Your task to perform on an android device: turn on notifications settings in the gmail app Image 0: 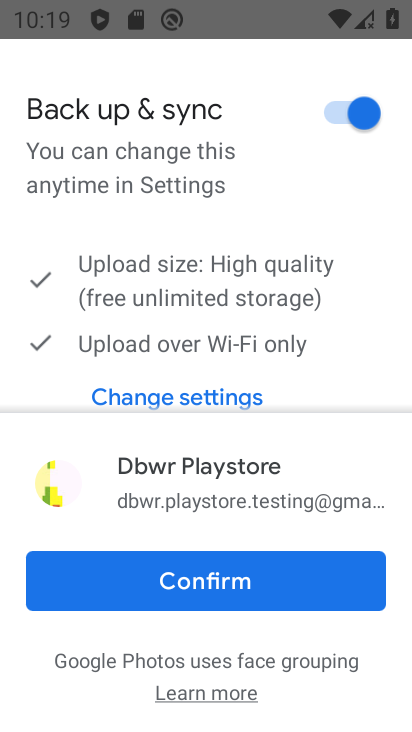
Step 0: press home button
Your task to perform on an android device: turn on notifications settings in the gmail app Image 1: 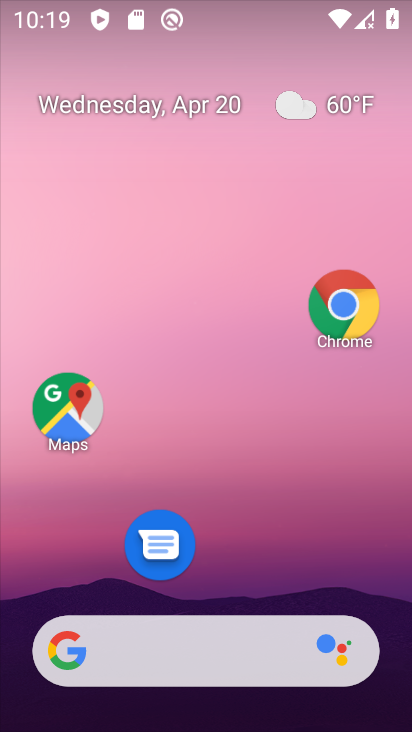
Step 1: drag from (261, 620) to (281, 146)
Your task to perform on an android device: turn on notifications settings in the gmail app Image 2: 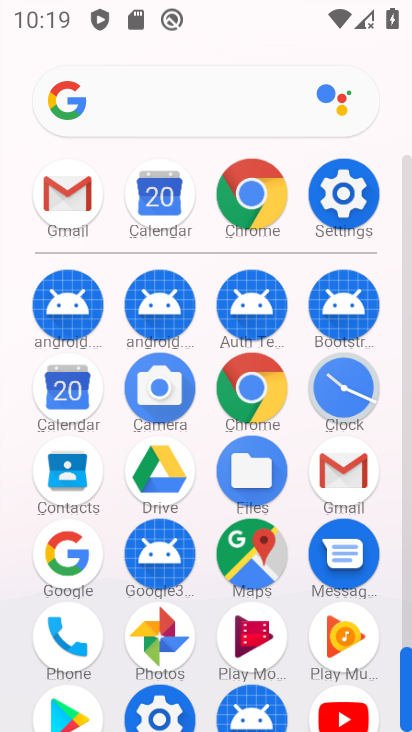
Step 2: click (354, 477)
Your task to perform on an android device: turn on notifications settings in the gmail app Image 3: 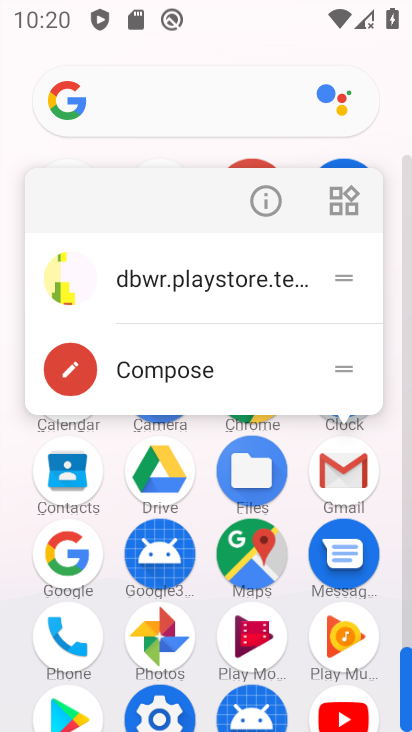
Step 3: click (356, 478)
Your task to perform on an android device: turn on notifications settings in the gmail app Image 4: 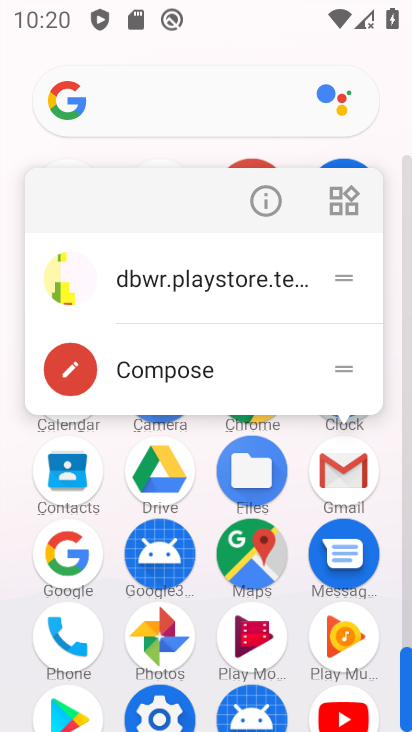
Step 4: click (351, 489)
Your task to perform on an android device: turn on notifications settings in the gmail app Image 5: 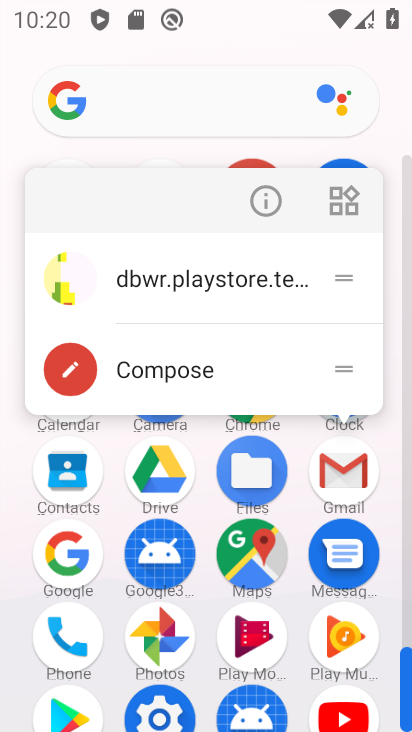
Step 5: click (354, 509)
Your task to perform on an android device: turn on notifications settings in the gmail app Image 6: 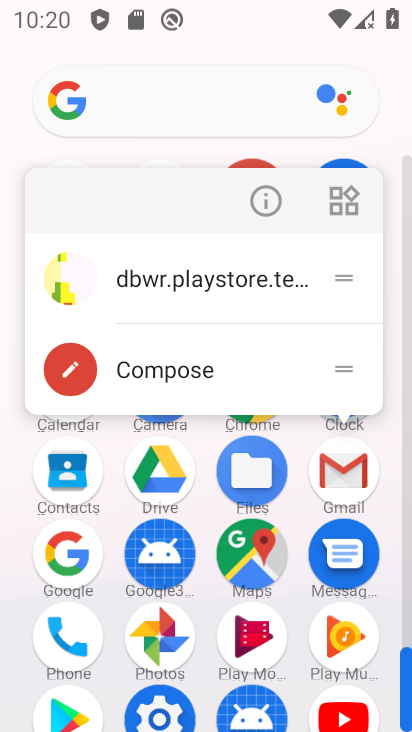
Step 6: click (349, 454)
Your task to perform on an android device: turn on notifications settings in the gmail app Image 7: 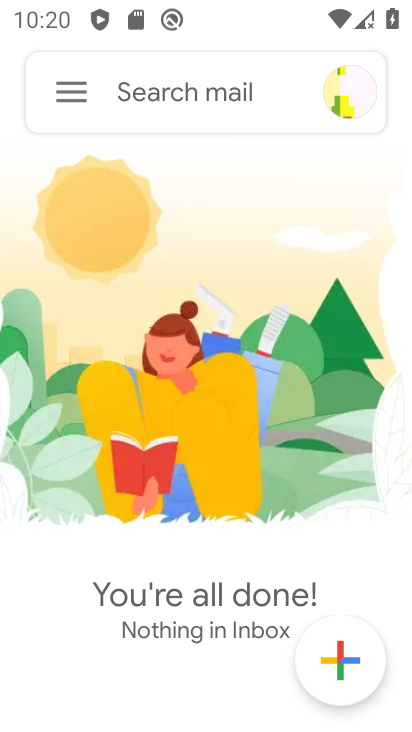
Step 7: click (74, 86)
Your task to perform on an android device: turn on notifications settings in the gmail app Image 8: 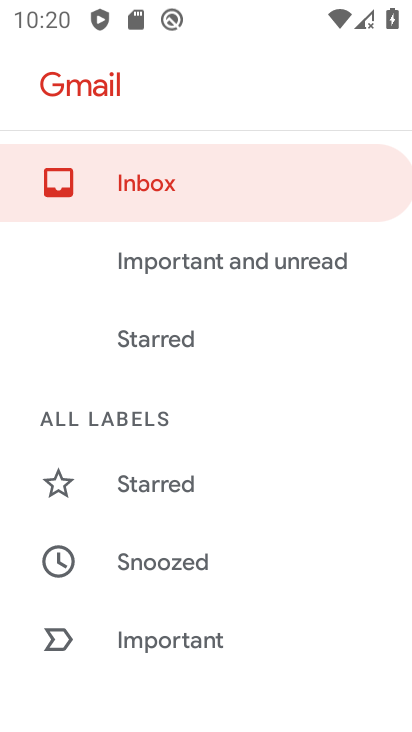
Step 8: drag from (179, 594) to (170, 194)
Your task to perform on an android device: turn on notifications settings in the gmail app Image 9: 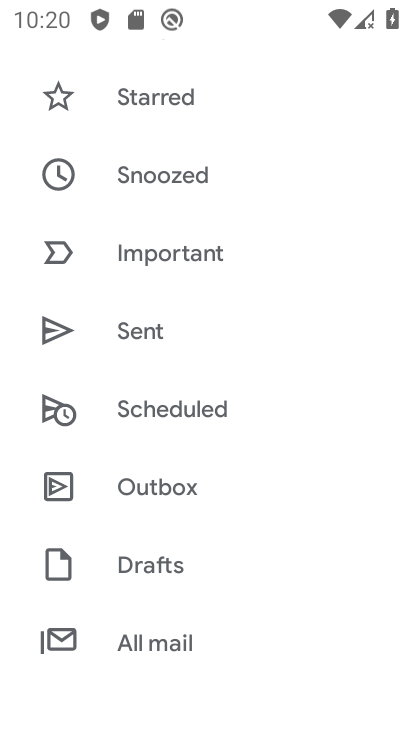
Step 9: drag from (219, 446) to (217, 98)
Your task to perform on an android device: turn on notifications settings in the gmail app Image 10: 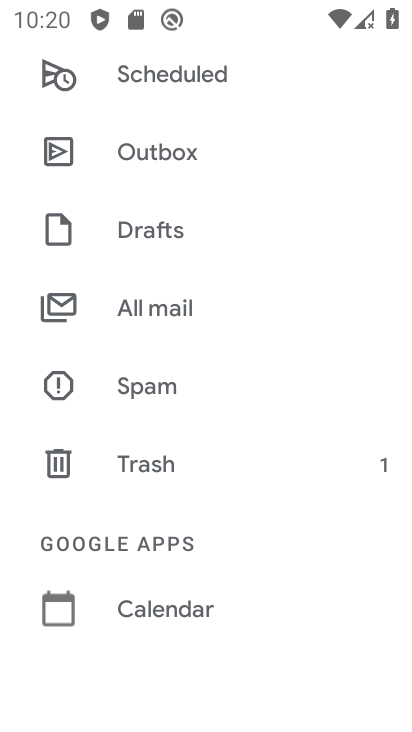
Step 10: drag from (181, 550) to (192, 177)
Your task to perform on an android device: turn on notifications settings in the gmail app Image 11: 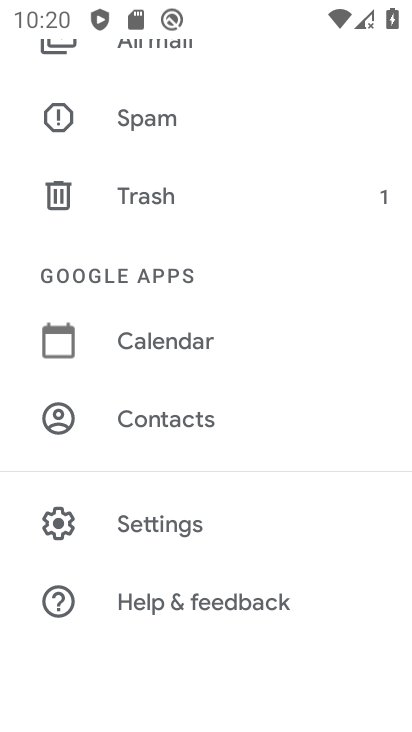
Step 11: click (197, 518)
Your task to perform on an android device: turn on notifications settings in the gmail app Image 12: 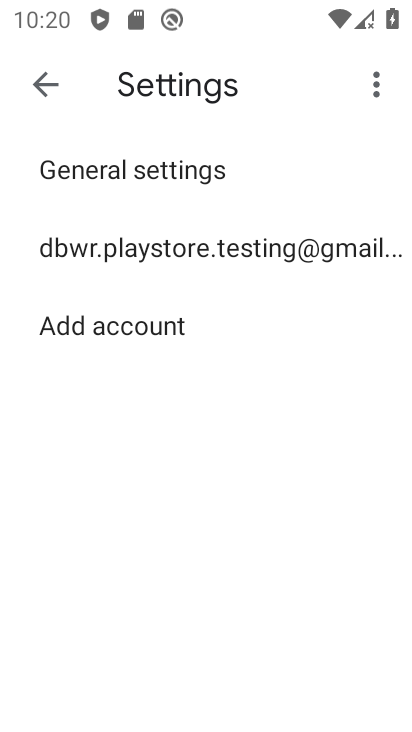
Step 12: click (196, 172)
Your task to perform on an android device: turn on notifications settings in the gmail app Image 13: 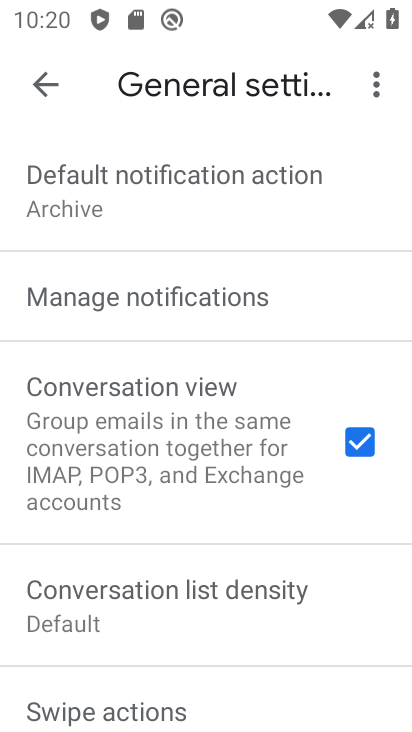
Step 13: click (190, 296)
Your task to perform on an android device: turn on notifications settings in the gmail app Image 14: 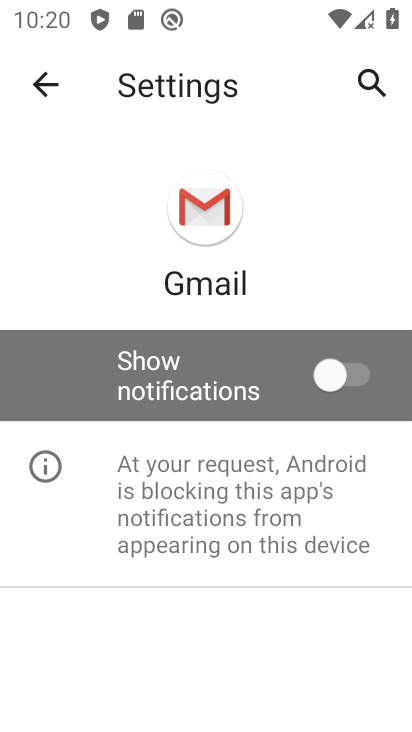
Step 14: click (238, 378)
Your task to perform on an android device: turn on notifications settings in the gmail app Image 15: 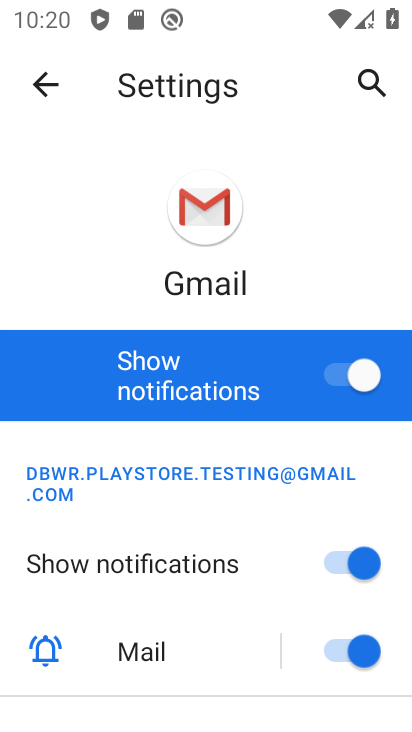
Step 15: task complete